Your task to perform on an android device: Open Google Image 0: 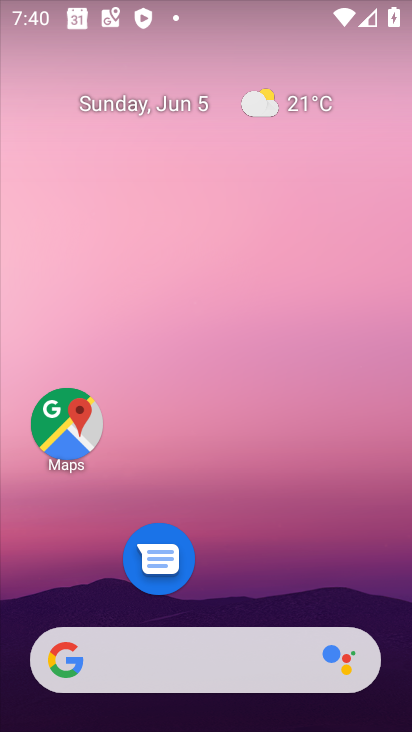
Step 0: click (171, 632)
Your task to perform on an android device: Open Google Image 1: 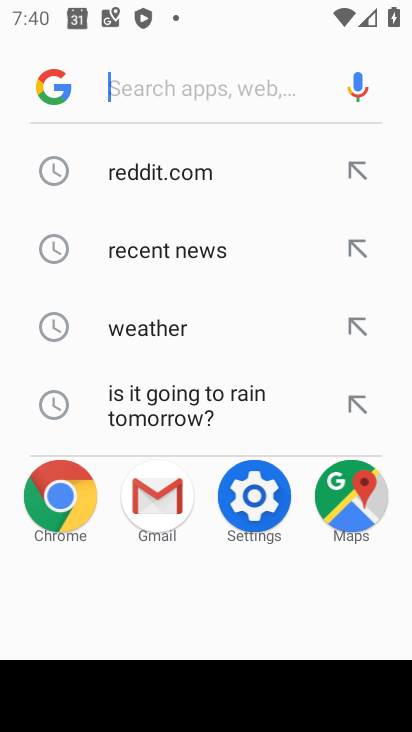
Step 1: task complete